Your task to perform on an android device: delete the emails in spam in the gmail app Image 0: 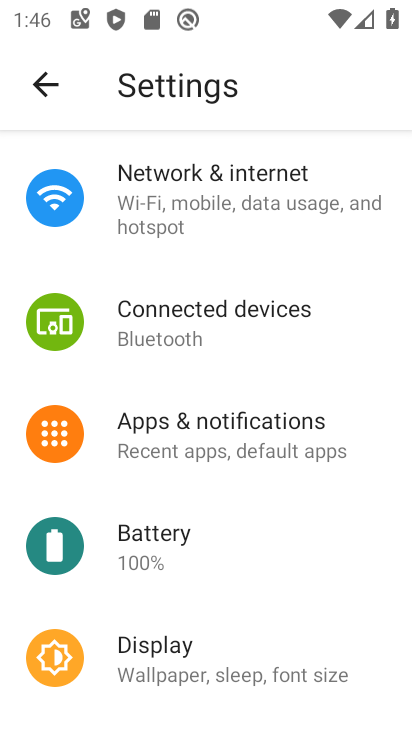
Step 0: press home button
Your task to perform on an android device: delete the emails in spam in the gmail app Image 1: 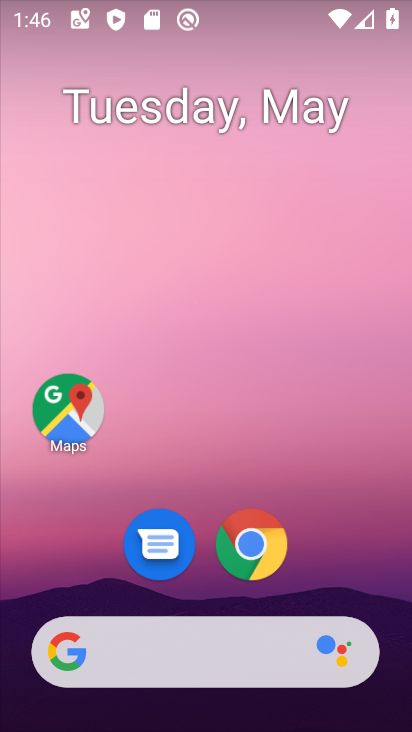
Step 1: drag from (368, 547) to (404, 131)
Your task to perform on an android device: delete the emails in spam in the gmail app Image 2: 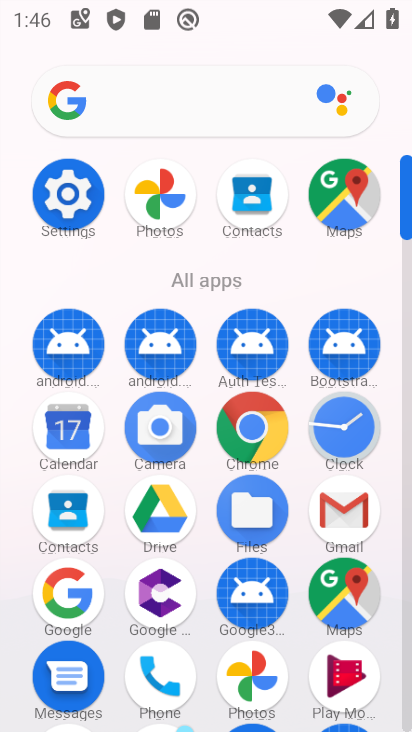
Step 2: click (351, 524)
Your task to perform on an android device: delete the emails in spam in the gmail app Image 3: 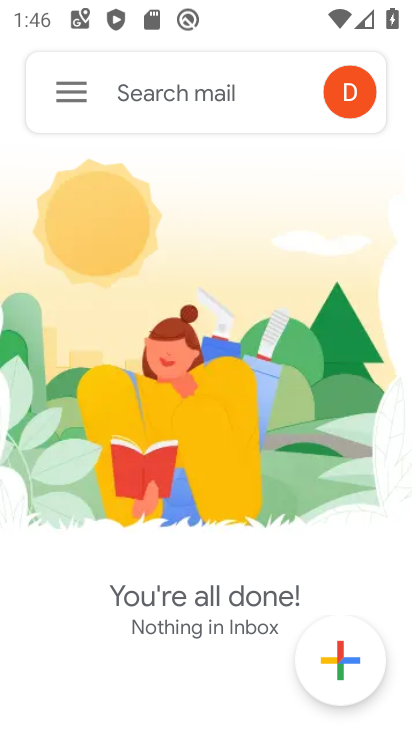
Step 3: click (72, 99)
Your task to perform on an android device: delete the emails in spam in the gmail app Image 4: 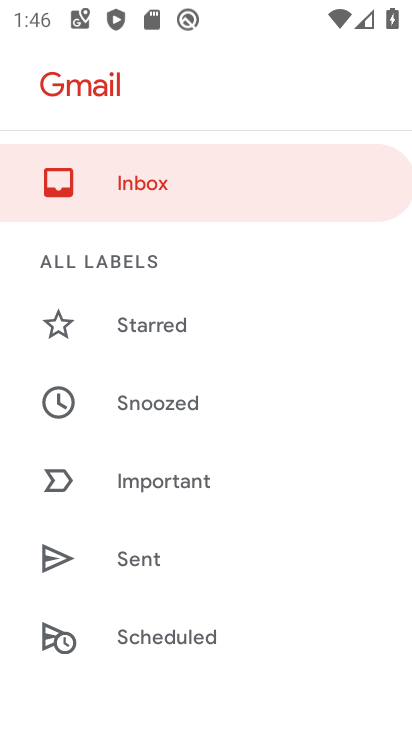
Step 4: drag from (121, 539) to (238, 252)
Your task to perform on an android device: delete the emails in spam in the gmail app Image 5: 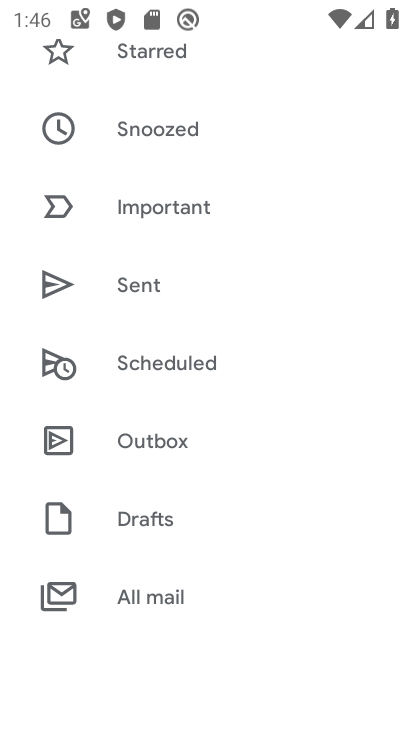
Step 5: drag from (154, 540) to (281, 386)
Your task to perform on an android device: delete the emails in spam in the gmail app Image 6: 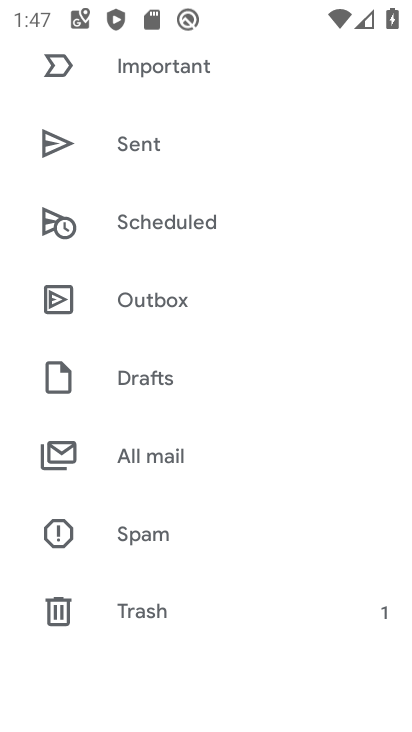
Step 6: click (133, 528)
Your task to perform on an android device: delete the emails in spam in the gmail app Image 7: 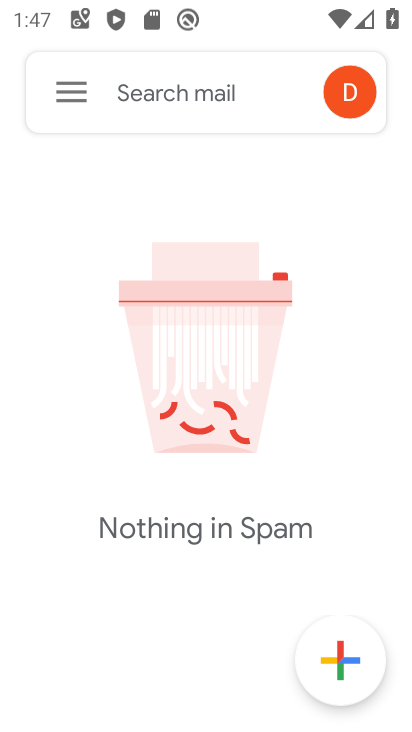
Step 7: task complete